Your task to perform on an android device: Search for corsair k70 on target, select the first entry, and add it to the cart. Image 0: 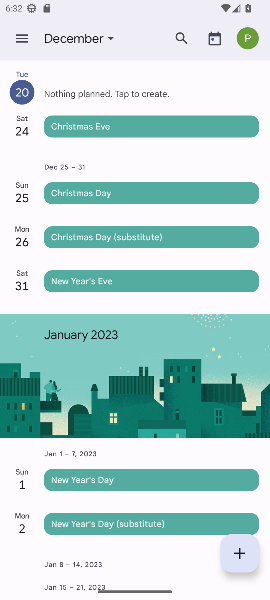
Step 0: press home button
Your task to perform on an android device: Search for corsair k70 on target, select the first entry, and add it to the cart. Image 1: 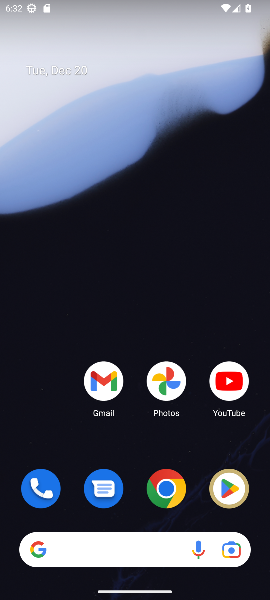
Step 1: drag from (50, 423) to (50, 41)
Your task to perform on an android device: Search for corsair k70 on target, select the first entry, and add it to the cart. Image 2: 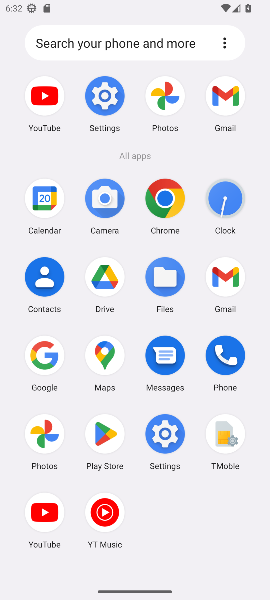
Step 2: click (49, 352)
Your task to perform on an android device: Search for corsair k70 on target, select the first entry, and add it to the cart. Image 3: 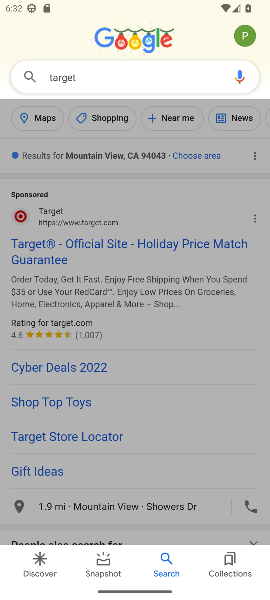
Step 3: click (107, 73)
Your task to perform on an android device: Search for corsair k70 on target, select the first entry, and add it to the cart. Image 4: 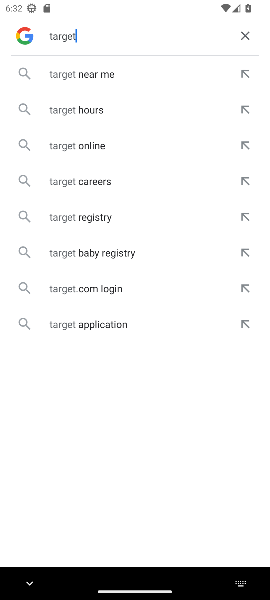
Step 4: click (250, 34)
Your task to perform on an android device: Search for corsair k70 on target, select the first entry, and add it to the cart. Image 5: 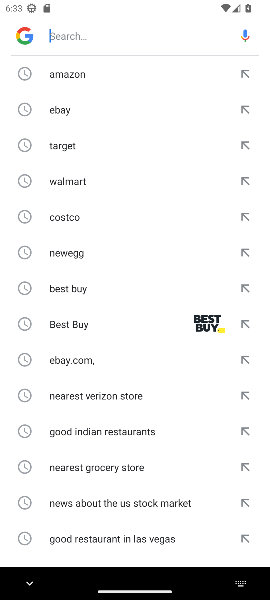
Step 5: type "target"
Your task to perform on an android device: Search for corsair k70 on target, select the first entry, and add it to the cart. Image 6: 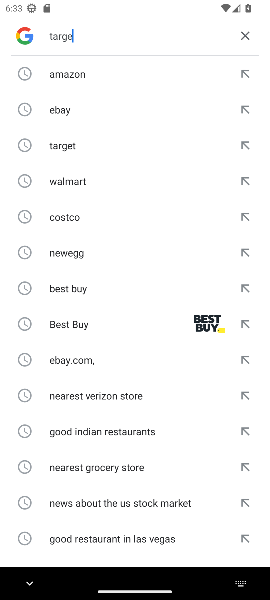
Step 6: press enter
Your task to perform on an android device: Search for corsair k70 on target, select the first entry, and add it to the cart. Image 7: 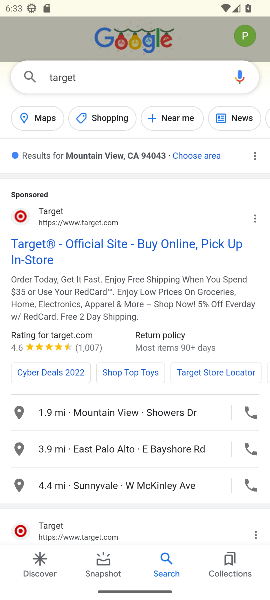
Step 7: click (80, 243)
Your task to perform on an android device: Search for corsair k70 on target, select the first entry, and add it to the cart. Image 8: 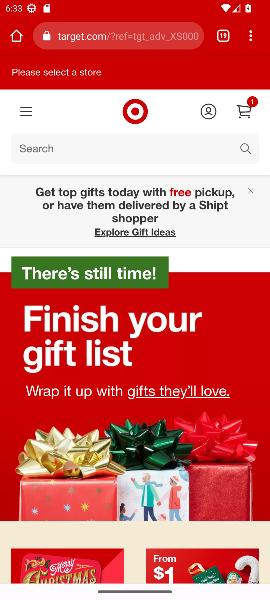
Step 8: click (54, 146)
Your task to perform on an android device: Search for corsair k70 on target, select the first entry, and add it to the cart. Image 9: 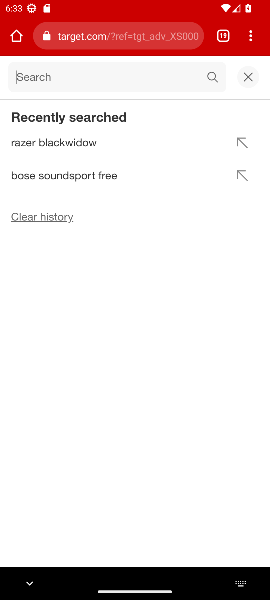
Step 9: type "corsair k70"
Your task to perform on an android device: Search for corsair k70 on target, select the first entry, and add it to the cart. Image 10: 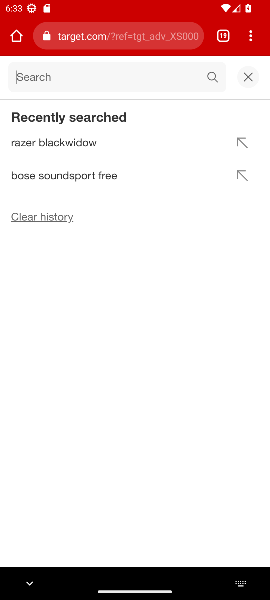
Step 10: press enter
Your task to perform on an android device: Search for corsair k70 on target, select the first entry, and add it to the cart. Image 11: 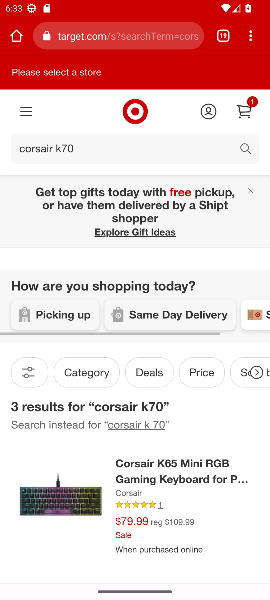
Step 11: task complete